Your task to perform on an android device: set the stopwatch Image 0: 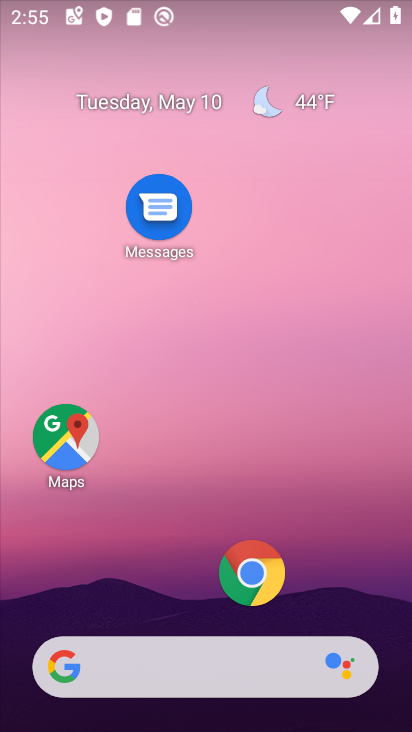
Step 0: drag from (202, 602) to (257, 126)
Your task to perform on an android device: set the stopwatch Image 1: 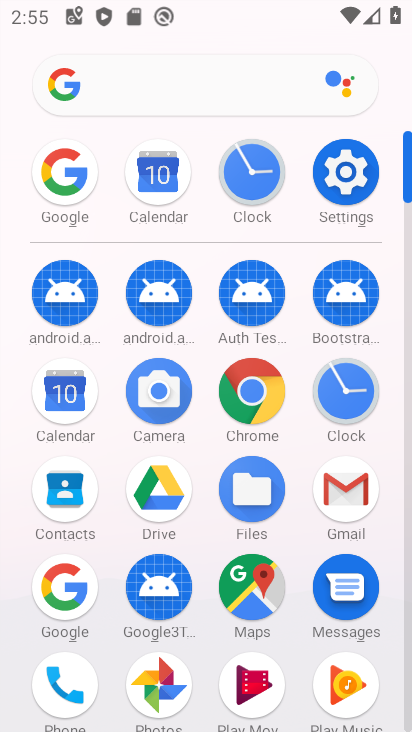
Step 1: click (324, 185)
Your task to perform on an android device: set the stopwatch Image 2: 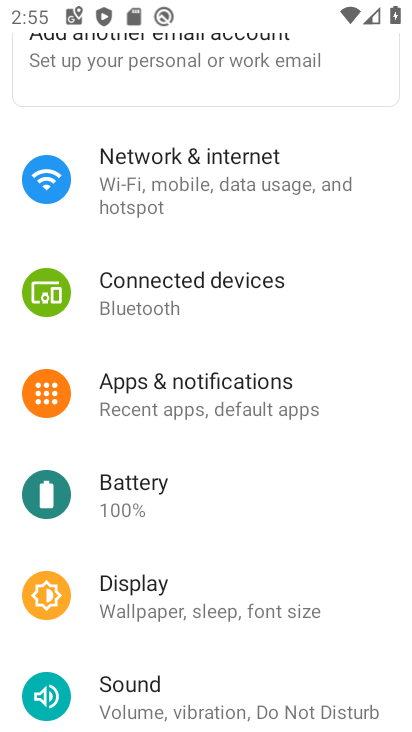
Step 2: press home button
Your task to perform on an android device: set the stopwatch Image 3: 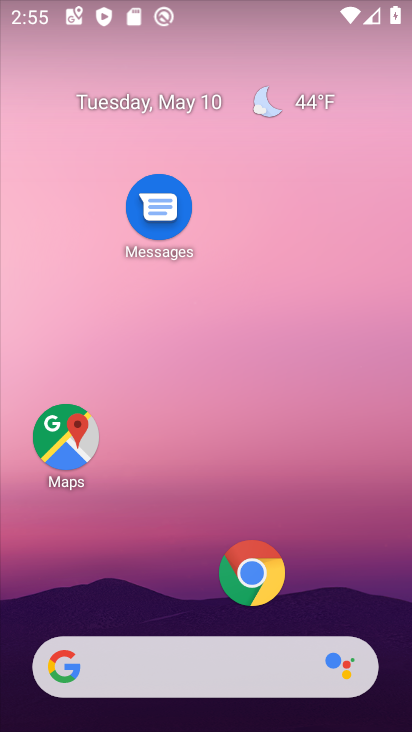
Step 3: drag from (155, 599) to (207, 174)
Your task to perform on an android device: set the stopwatch Image 4: 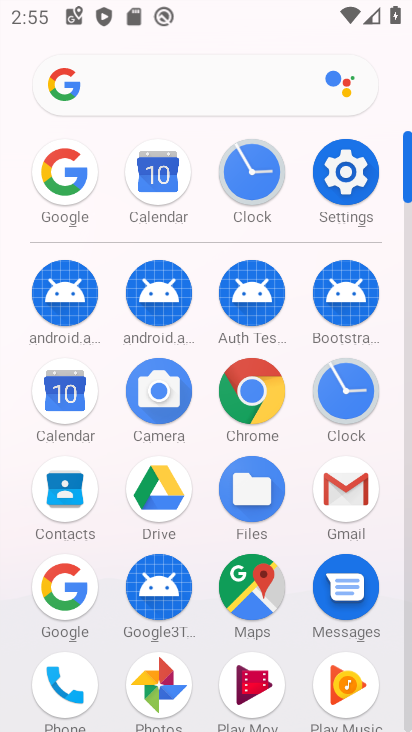
Step 4: click (320, 383)
Your task to perform on an android device: set the stopwatch Image 5: 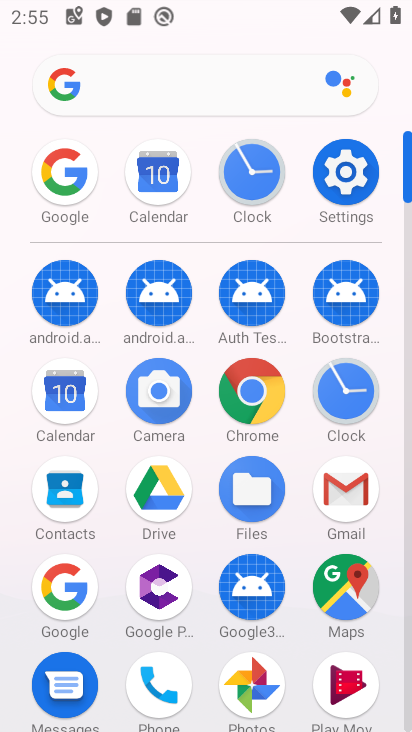
Step 5: click (326, 398)
Your task to perform on an android device: set the stopwatch Image 6: 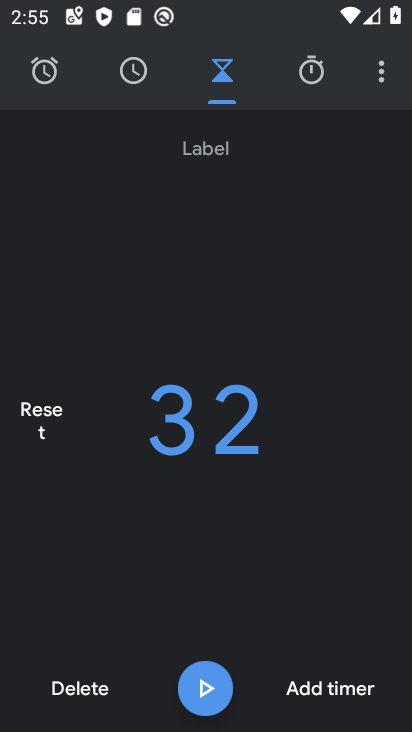
Step 6: click (335, 77)
Your task to perform on an android device: set the stopwatch Image 7: 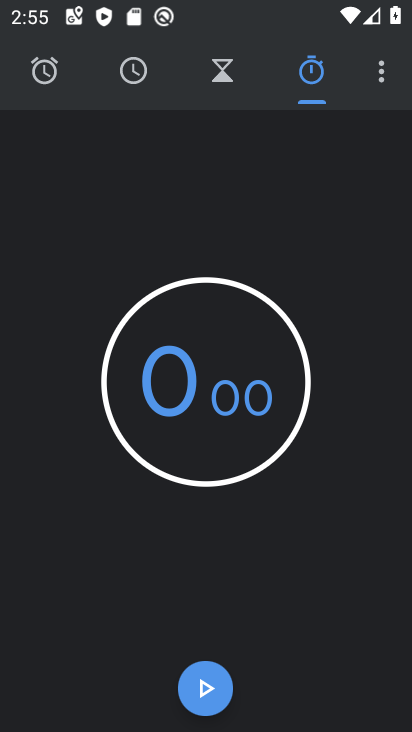
Step 7: click (206, 700)
Your task to perform on an android device: set the stopwatch Image 8: 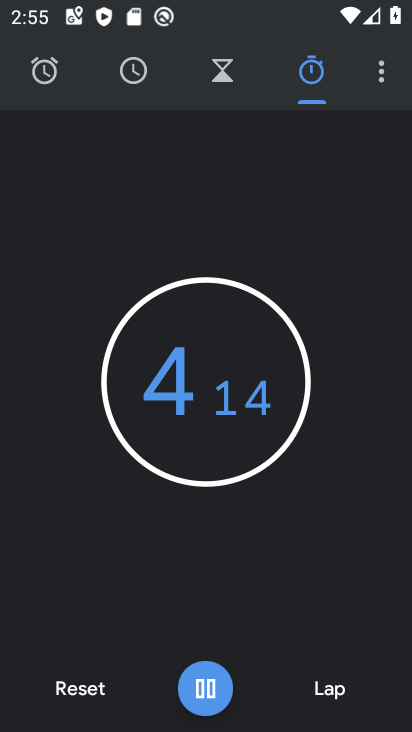
Step 8: task complete